Your task to perform on an android device: turn on data saver in the chrome app Image 0: 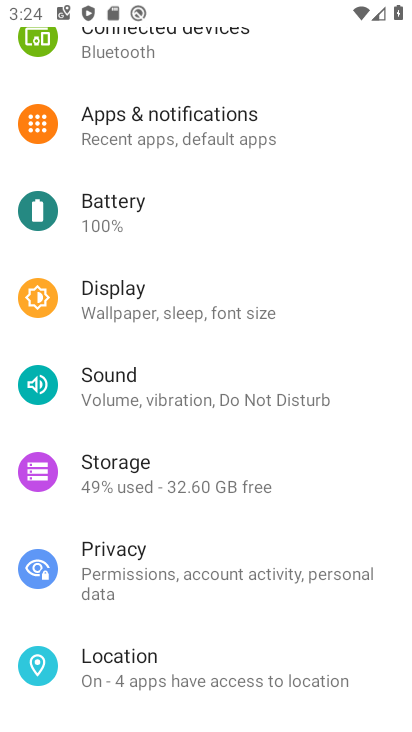
Step 0: press home button
Your task to perform on an android device: turn on data saver in the chrome app Image 1: 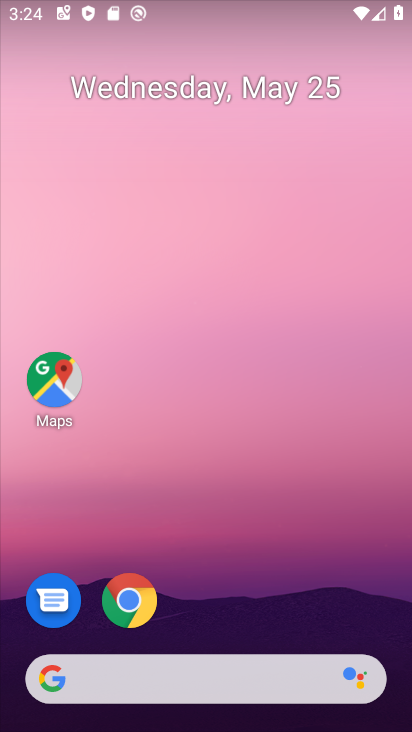
Step 1: click (128, 599)
Your task to perform on an android device: turn on data saver in the chrome app Image 2: 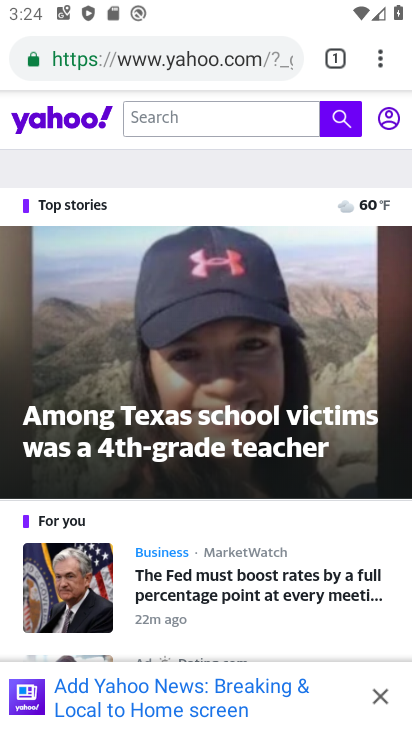
Step 2: click (375, 55)
Your task to perform on an android device: turn on data saver in the chrome app Image 3: 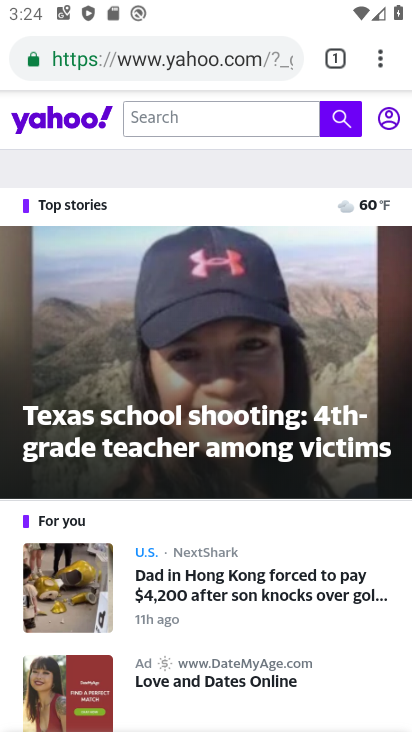
Step 3: click (375, 55)
Your task to perform on an android device: turn on data saver in the chrome app Image 4: 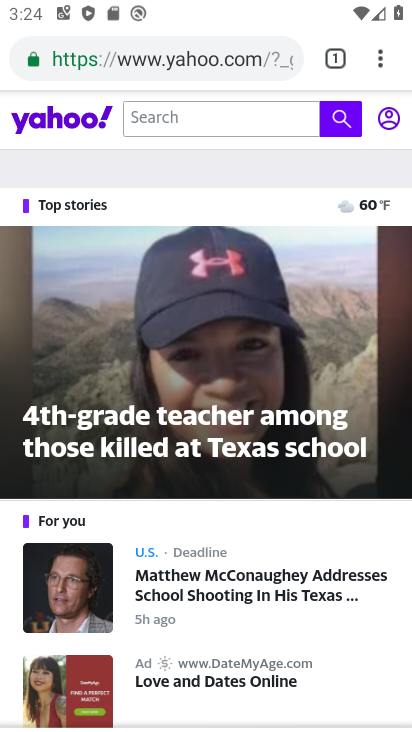
Step 4: click (384, 54)
Your task to perform on an android device: turn on data saver in the chrome app Image 5: 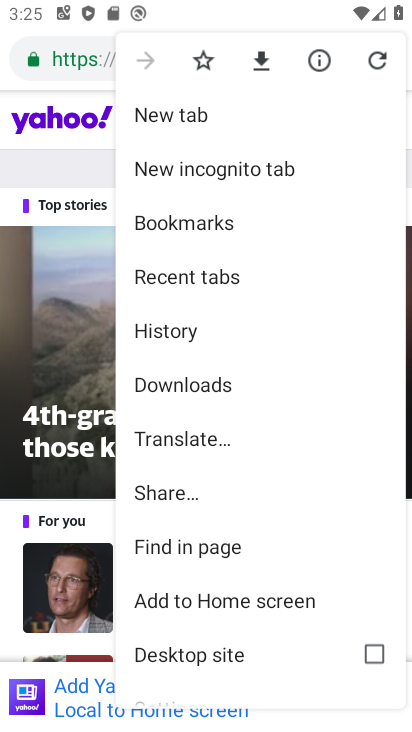
Step 5: drag from (134, 632) to (278, 248)
Your task to perform on an android device: turn on data saver in the chrome app Image 6: 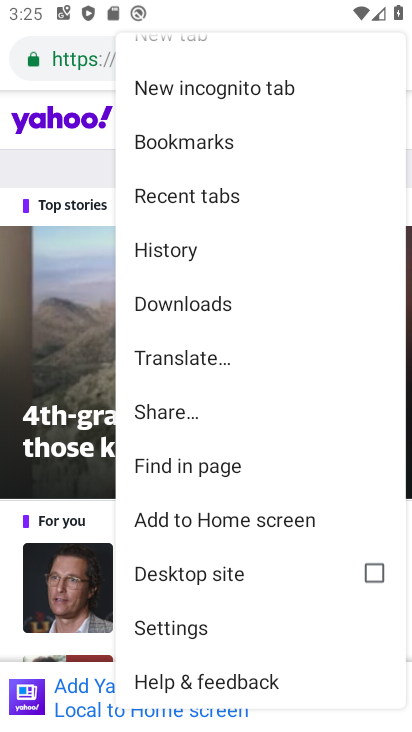
Step 6: click (154, 633)
Your task to perform on an android device: turn on data saver in the chrome app Image 7: 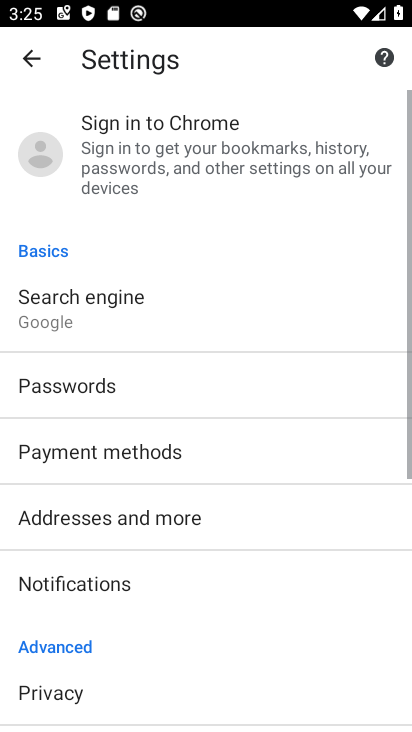
Step 7: drag from (16, 603) to (227, 159)
Your task to perform on an android device: turn on data saver in the chrome app Image 8: 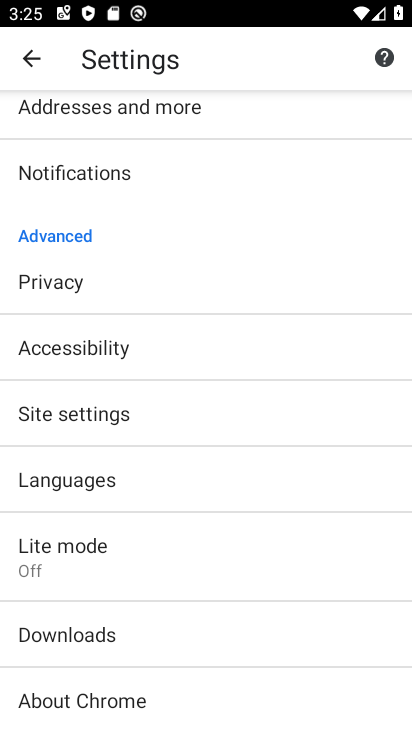
Step 8: click (69, 548)
Your task to perform on an android device: turn on data saver in the chrome app Image 9: 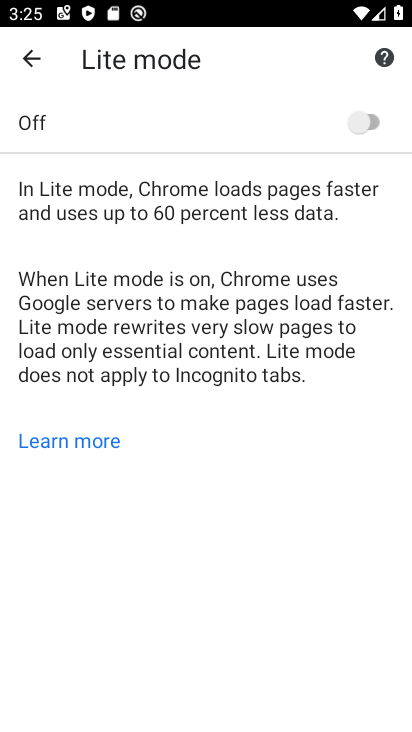
Step 9: click (349, 129)
Your task to perform on an android device: turn on data saver in the chrome app Image 10: 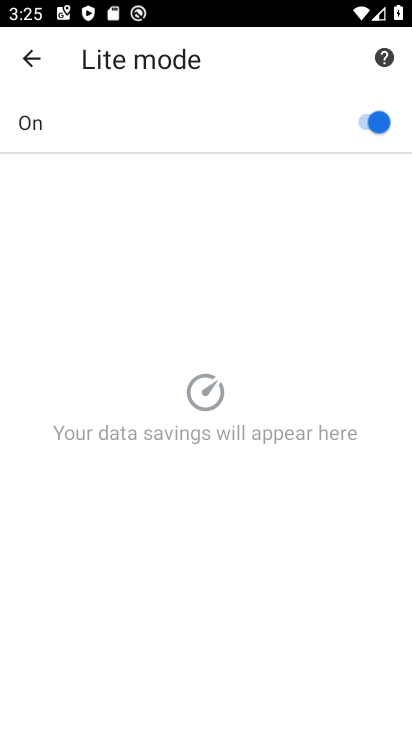
Step 10: task complete